Your task to perform on an android device: toggle airplane mode Image 0: 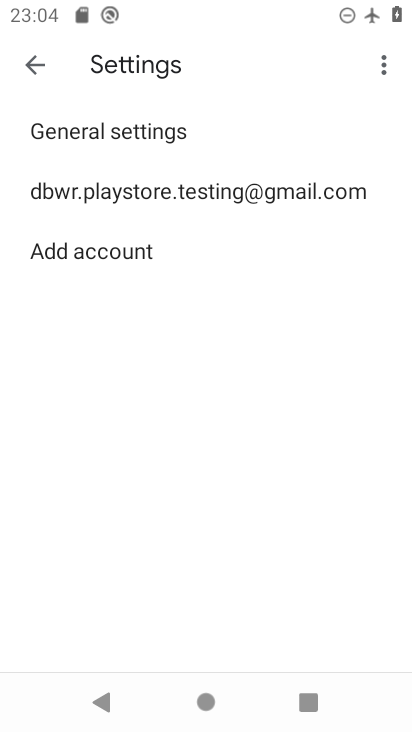
Step 0: press home button
Your task to perform on an android device: toggle airplane mode Image 1: 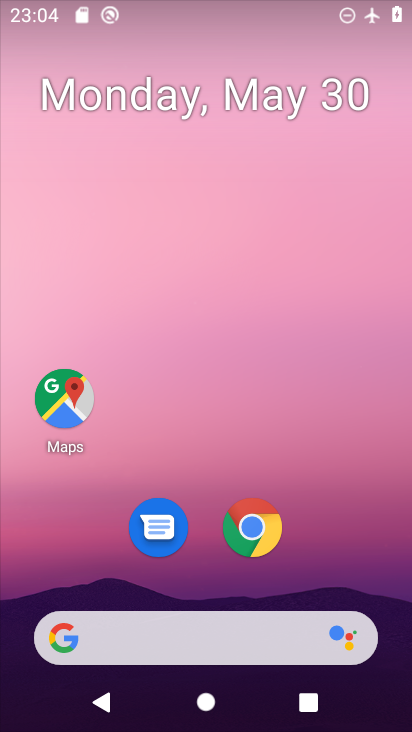
Step 1: drag from (299, 478) to (308, 96)
Your task to perform on an android device: toggle airplane mode Image 2: 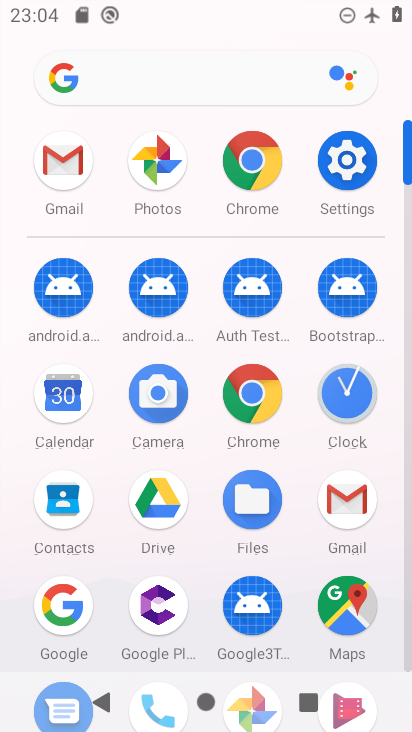
Step 2: click (346, 158)
Your task to perform on an android device: toggle airplane mode Image 3: 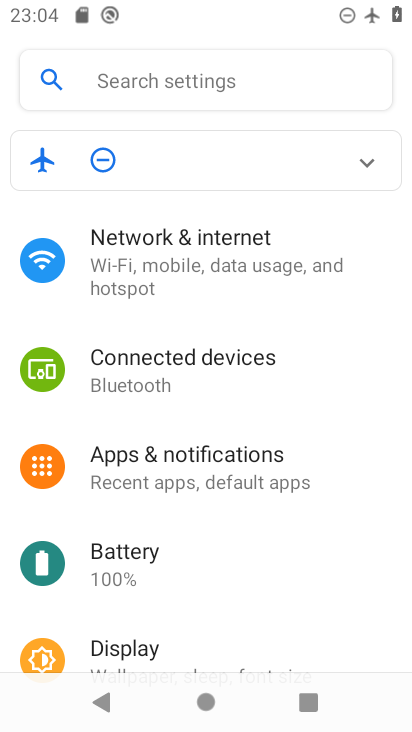
Step 3: click (164, 257)
Your task to perform on an android device: toggle airplane mode Image 4: 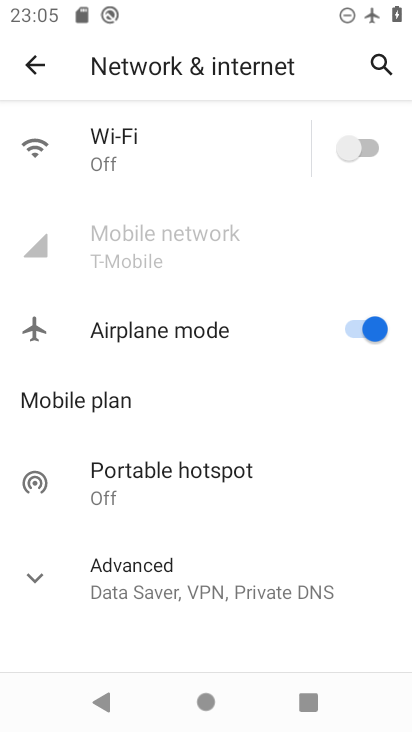
Step 4: click (346, 321)
Your task to perform on an android device: toggle airplane mode Image 5: 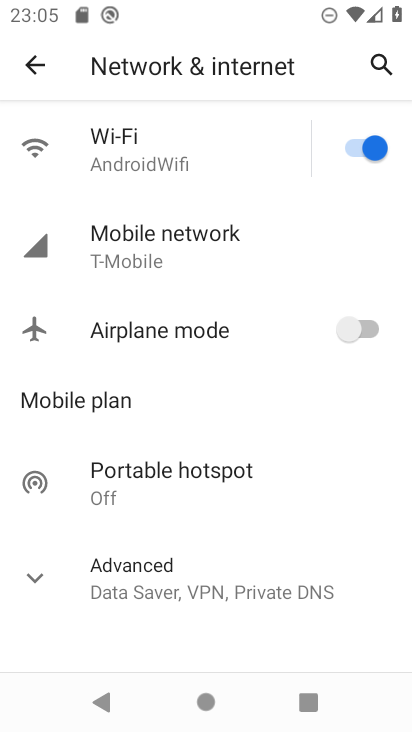
Step 5: task complete